Your task to perform on an android device: Open Amazon Image 0: 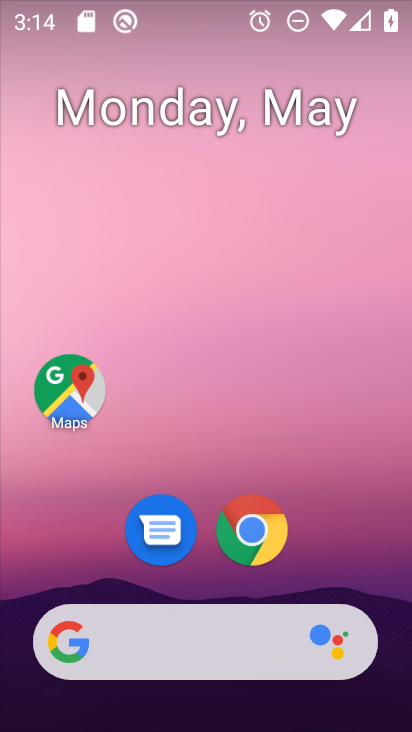
Step 0: drag from (202, 559) to (193, 84)
Your task to perform on an android device: Open Amazon Image 1: 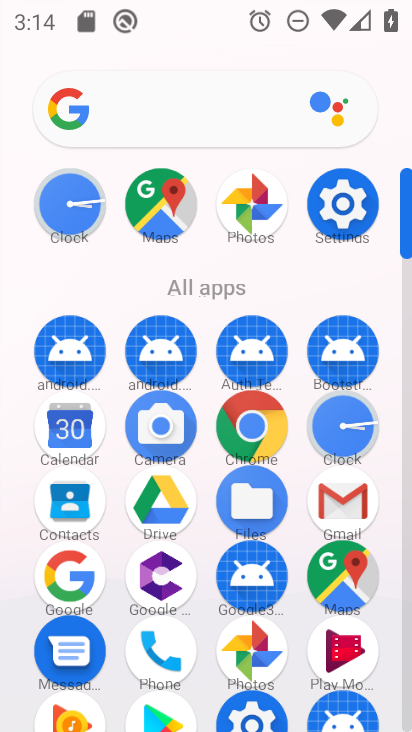
Step 1: click (240, 437)
Your task to perform on an android device: Open Amazon Image 2: 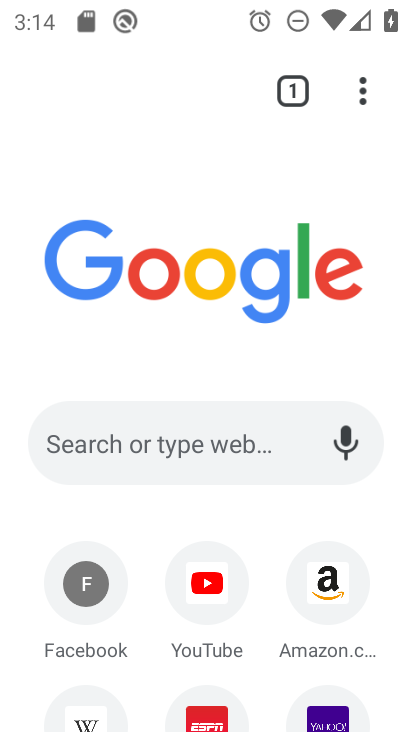
Step 2: click (249, 436)
Your task to perform on an android device: Open Amazon Image 3: 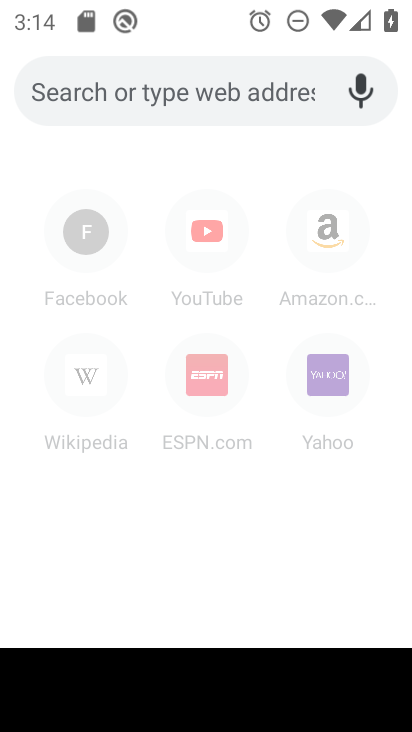
Step 3: press back button
Your task to perform on an android device: Open Amazon Image 4: 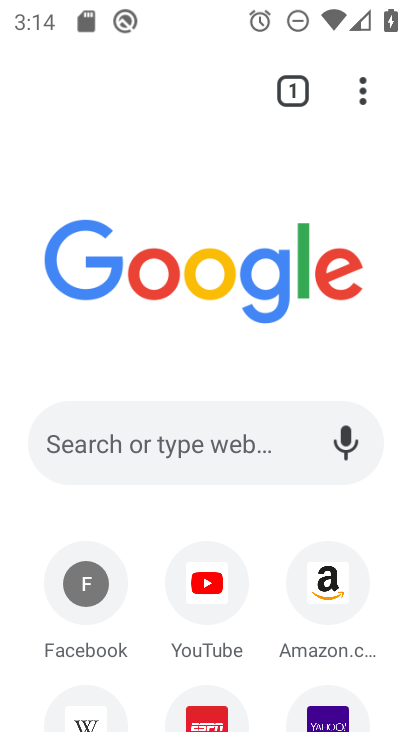
Step 4: click (324, 591)
Your task to perform on an android device: Open Amazon Image 5: 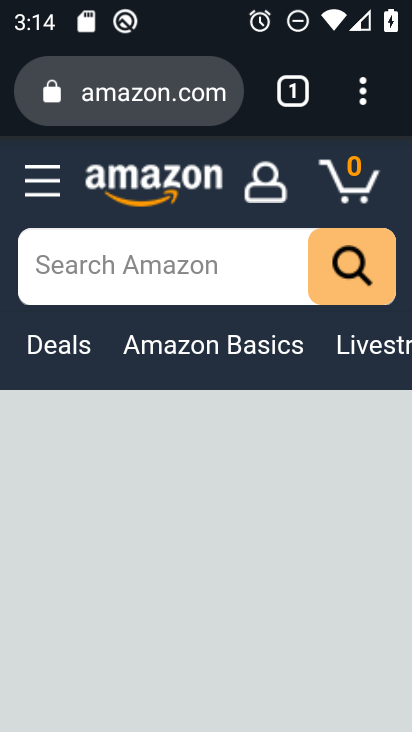
Step 5: task complete